Your task to perform on an android device: Open Google Maps and go to "Timeline" Image 0: 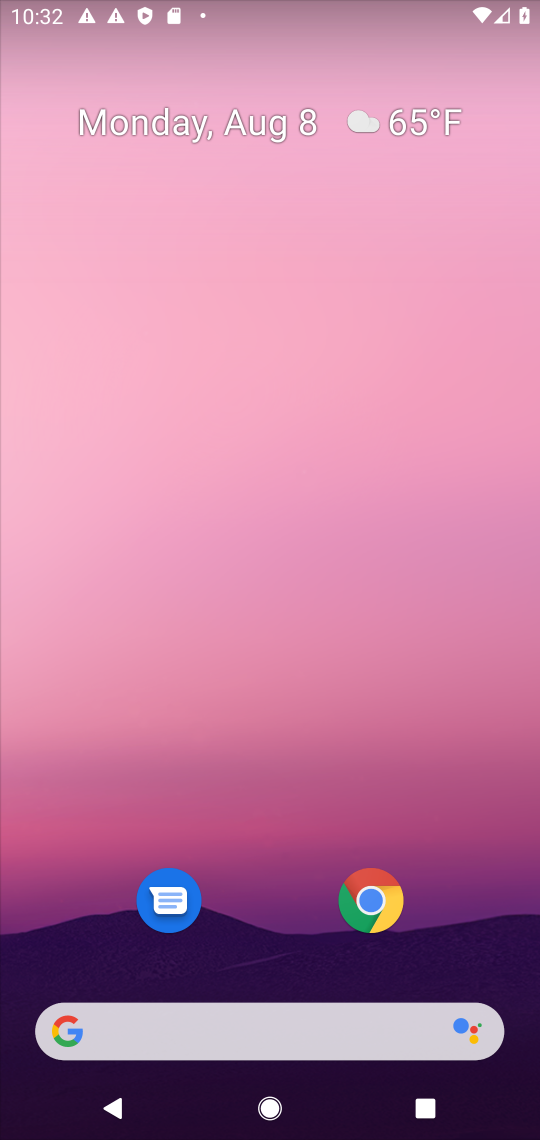
Step 0: drag from (281, 308) to (281, 156)
Your task to perform on an android device: Open Google Maps and go to "Timeline" Image 1: 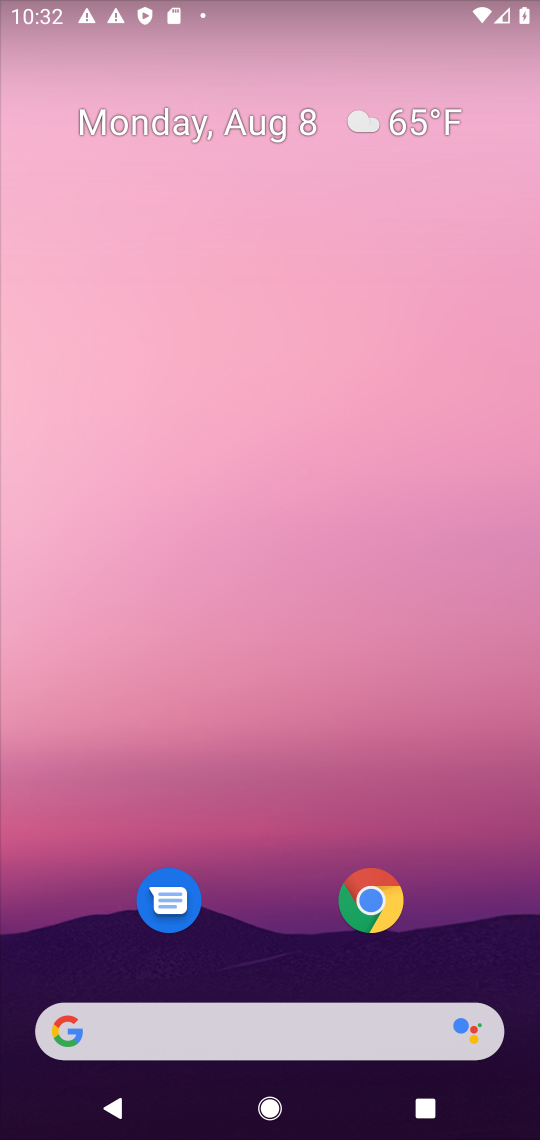
Step 1: drag from (256, 917) to (154, 59)
Your task to perform on an android device: Open Google Maps and go to "Timeline" Image 2: 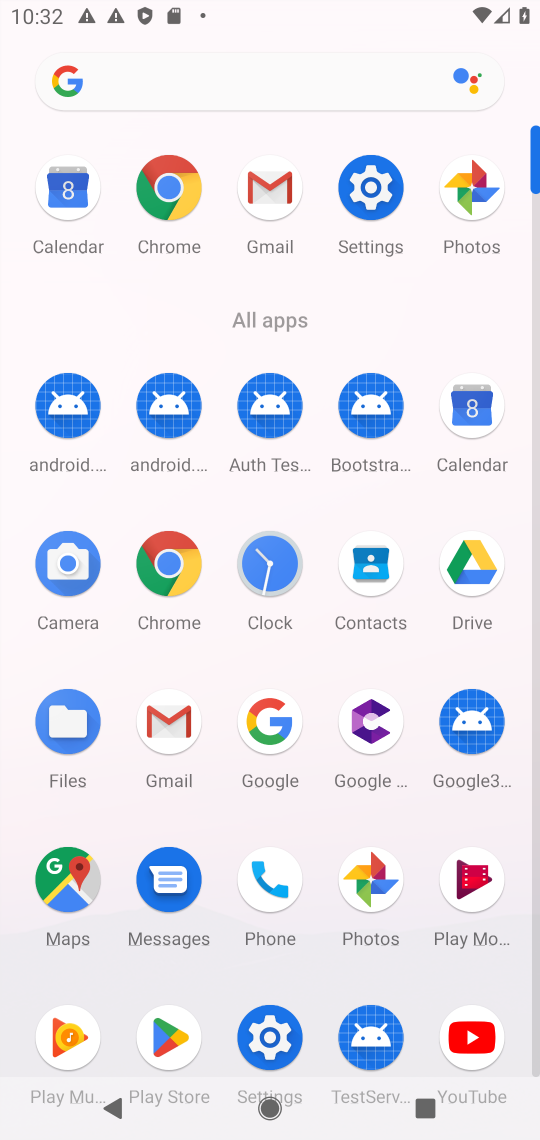
Step 2: click (67, 891)
Your task to perform on an android device: Open Google Maps and go to "Timeline" Image 3: 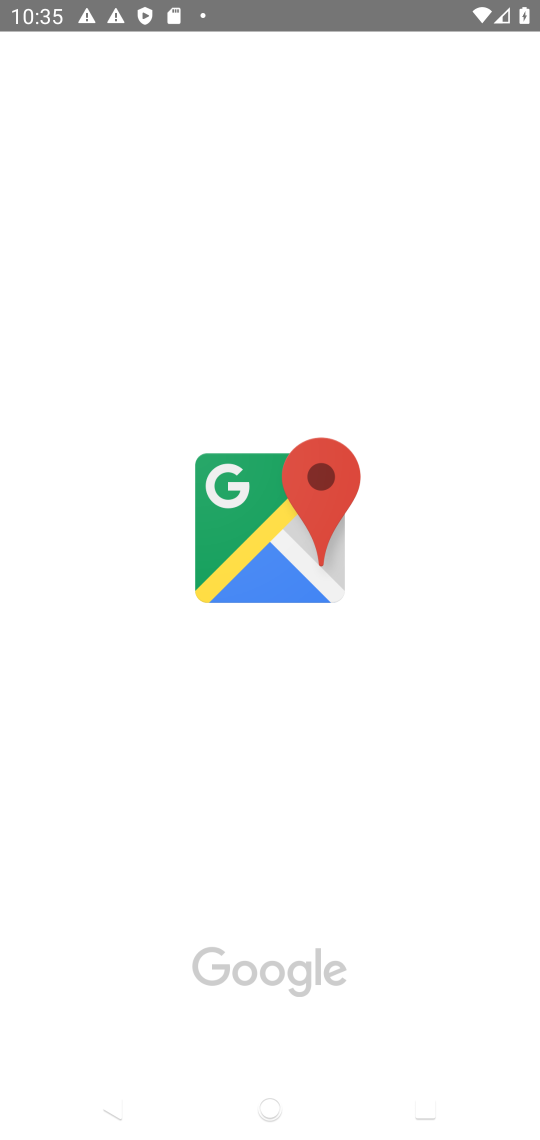
Step 3: task complete